Your task to perform on an android device: toggle priority inbox in the gmail app Image 0: 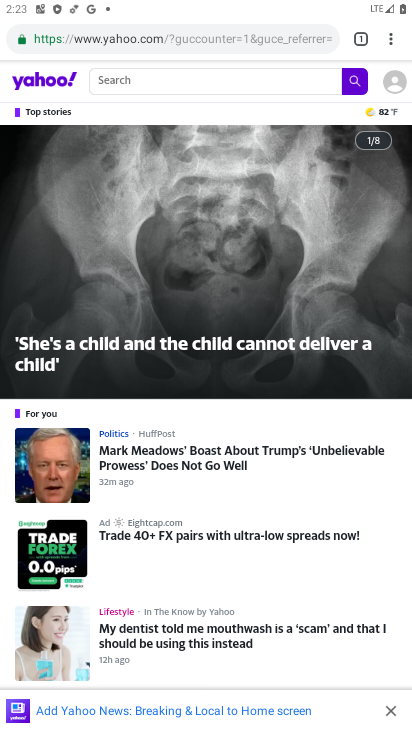
Step 0: press home button
Your task to perform on an android device: toggle priority inbox in the gmail app Image 1: 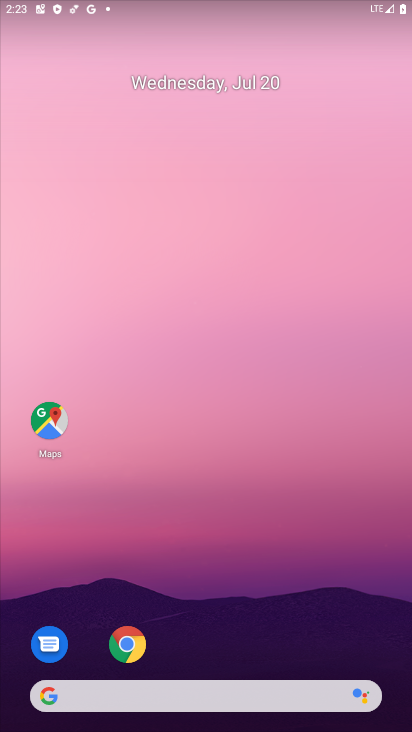
Step 1: drag from (226, 693) to (229, 223)
Your task to perform on an android device: toggle priority inbox in the gmail app Image 2: 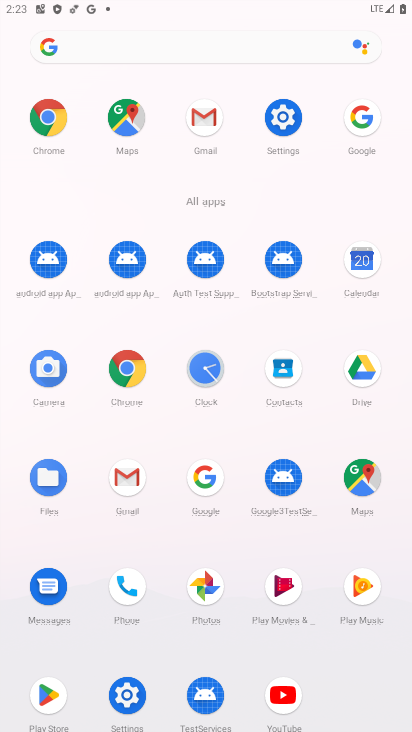
Step 2: click (202, 115)
Your task to perform on an android device: toggle priority inbox in the gmail app Image 3: 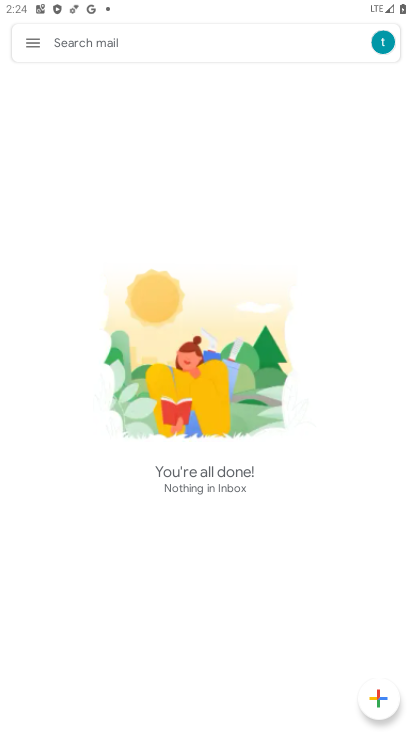
Step 3: click (31, 42)
Your task to perform on an android device: toggle priority inbox in the gmail app Image 4: 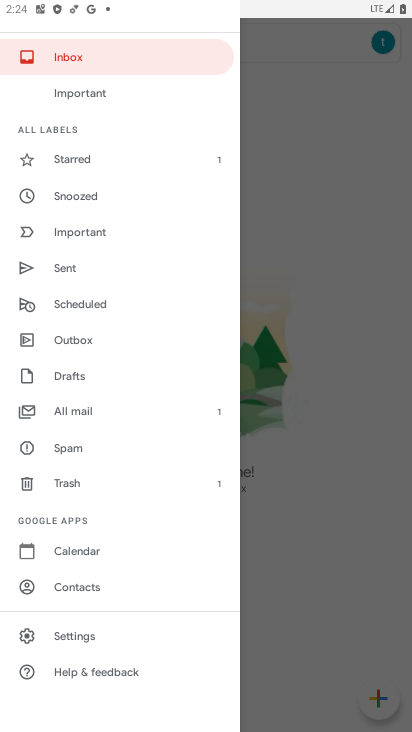
Step 4: click (70, 637)
Your task to perform on an android device: toggle priority inbox in the gmail app Image 5: 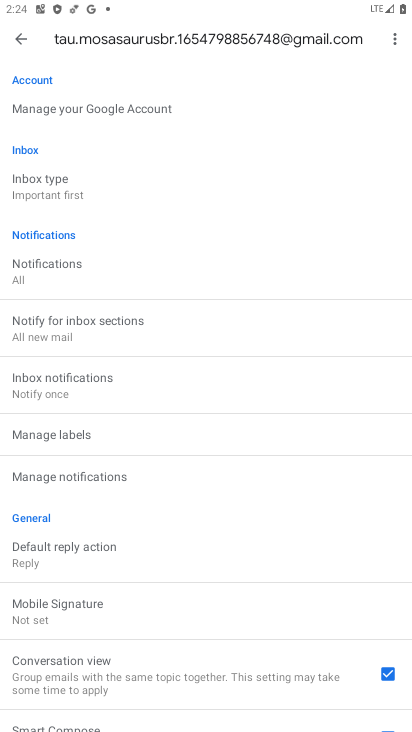
Step 5: click (53, 190)
Your task to perform on an android device: toggle priority inbox in the gmail app Image 6: 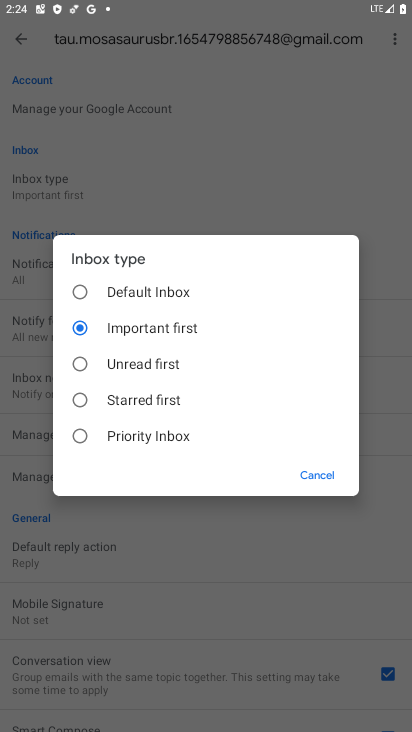
Step 6: click (77, 434)
Your task to perform on an android device: toggle priority inbox in the gmail app Image 7: 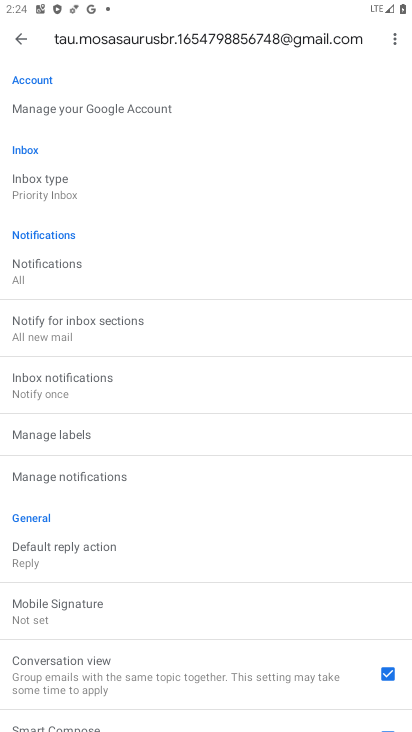
Step 7: task complete